Your task to perform on an android device: delete a single message in the gmail app Image 0: 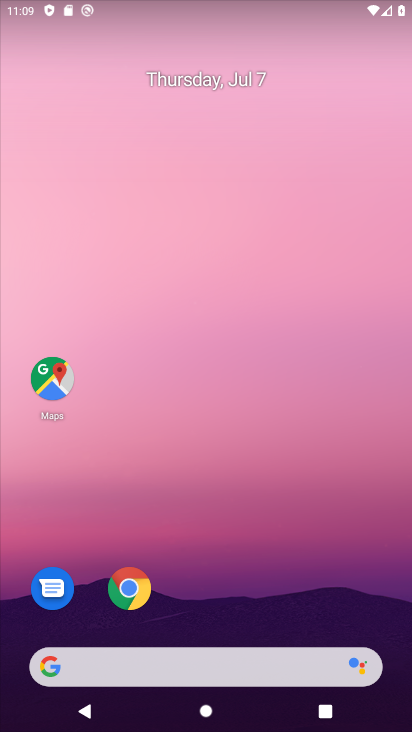
Step 0: drag from (254, 599) to (250, 200)
Your task to perform on an android device: delete a single message in the gmail app Image 1: 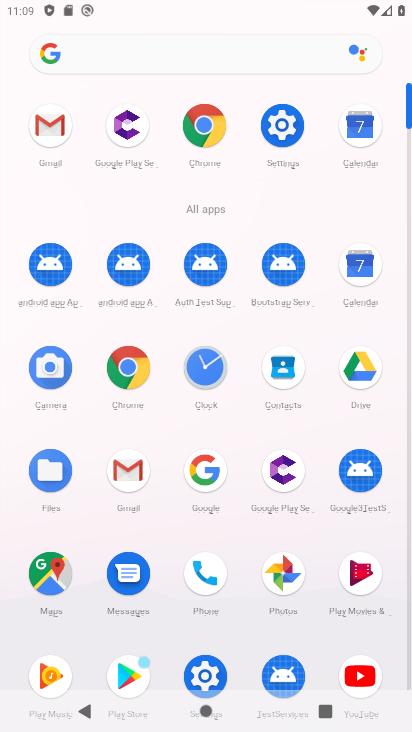
Step 1: click (46, 129)
Your task to perform on an android device: delete a single message in the gmail app Image 2: 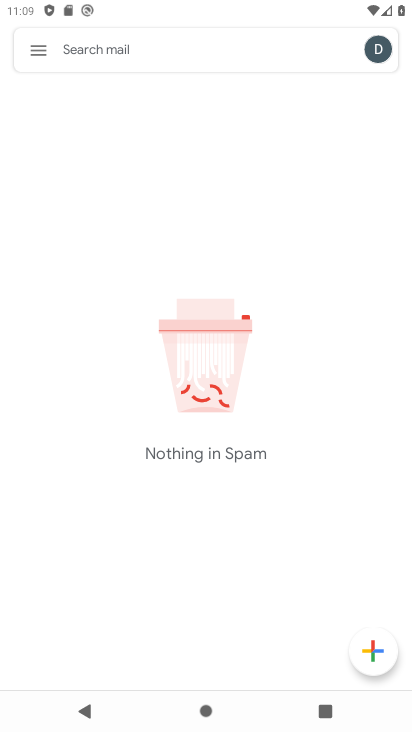
Step 2: click (40, 47)
Your task to perform on an android device: delete a single message in the gmail app Image 3: 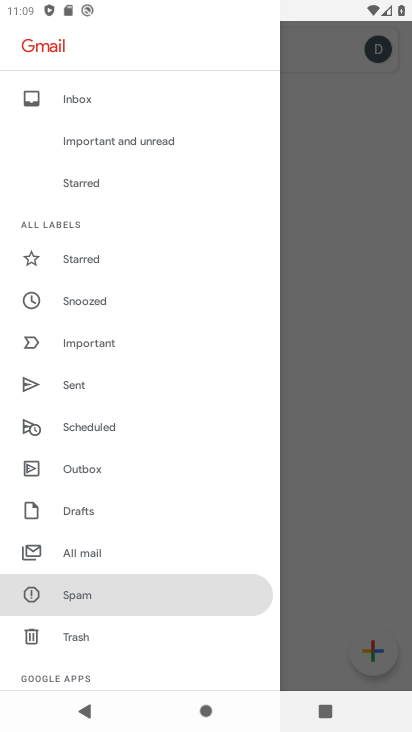
Step 3: click (67, 556)
Your task to perform on an android device: delete a single message in the gmail app Image 4: 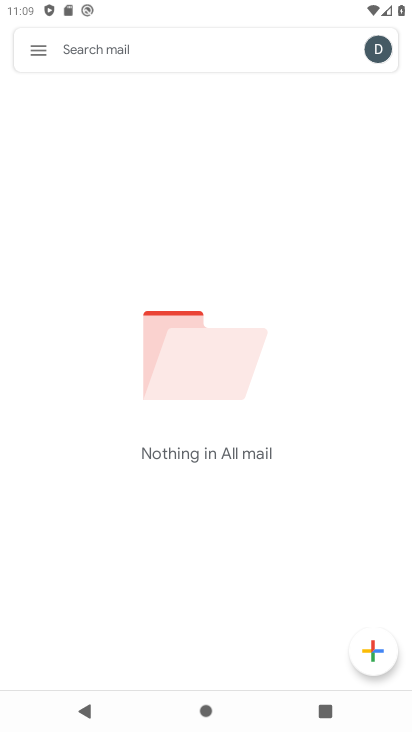
Step 4: task complete